Your task to perform on an android device: Go to Google Image 0: 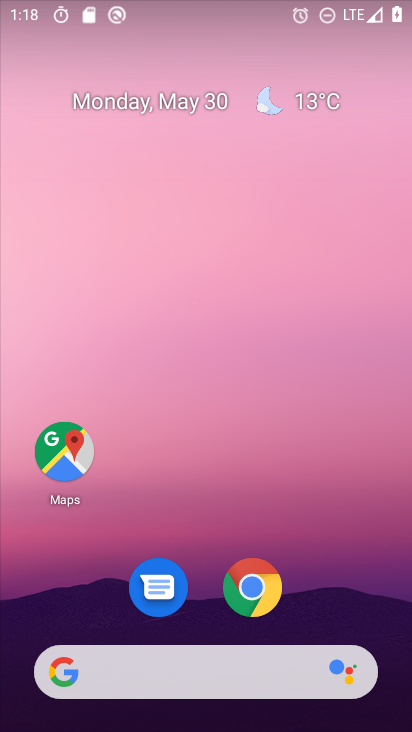
Step 0: drag from (352, 571) to (272, 173)
Your task to perform on an android device: Go to Google Image 1: 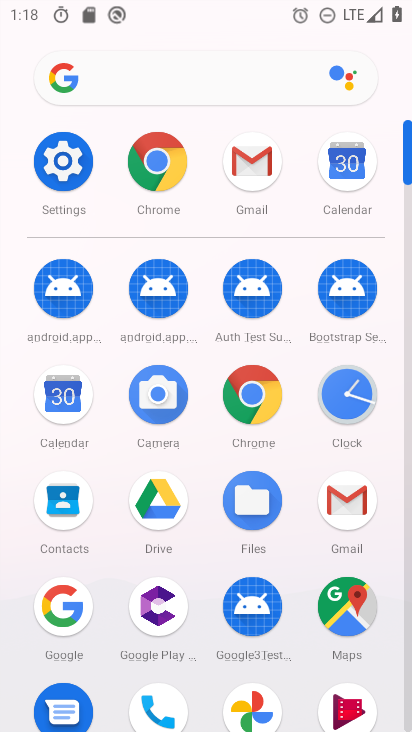
Step 1: click (65, 614)
Your task to perform on an android device: Go to Google Image 2: 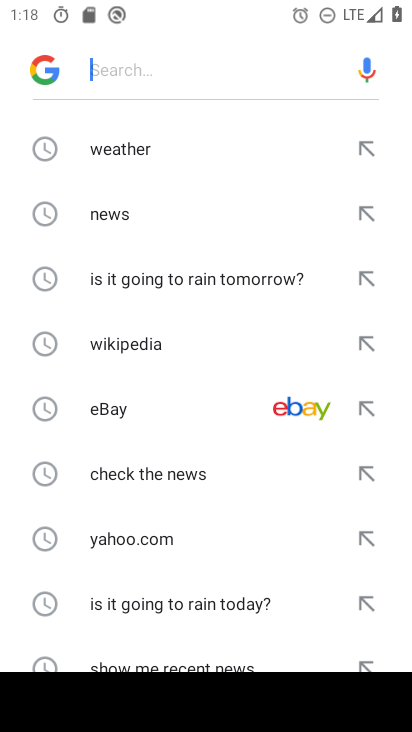
Step 2: task complete